Your task to perform on an android device: turn off picture-in-picture Image 0: 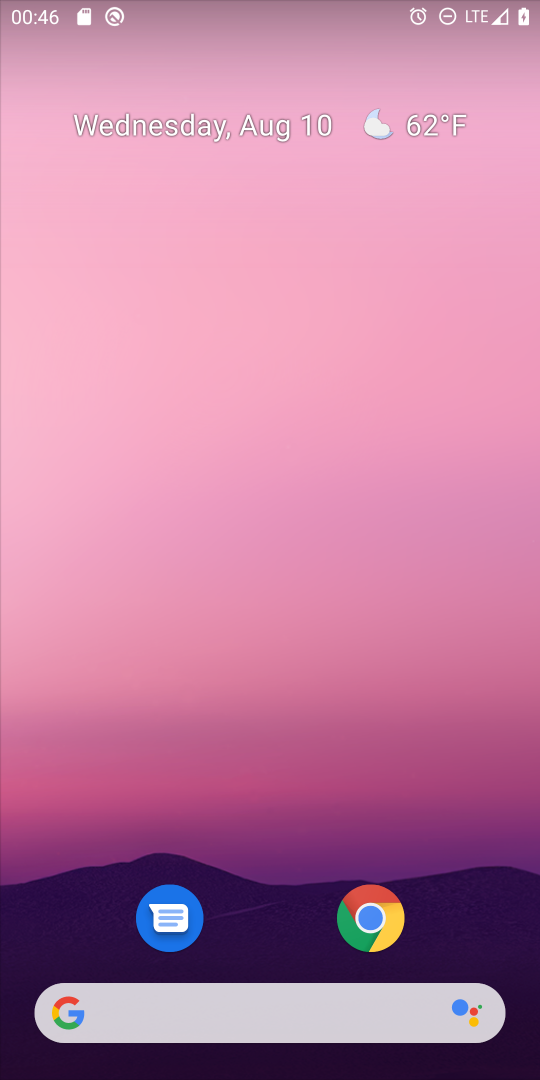
Step 0: click (378, 922)
Your task to perform on an android device: turn off picture-in-picture Image 1: 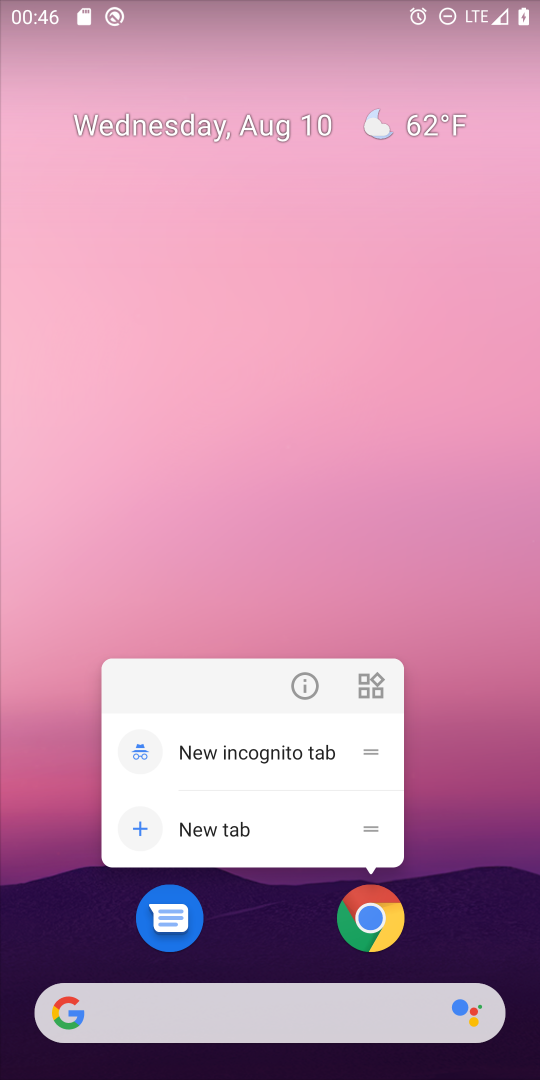
Step 1: click (312, 678)
Your task to perform on an android device: turn off picture-in-picture Image 2: 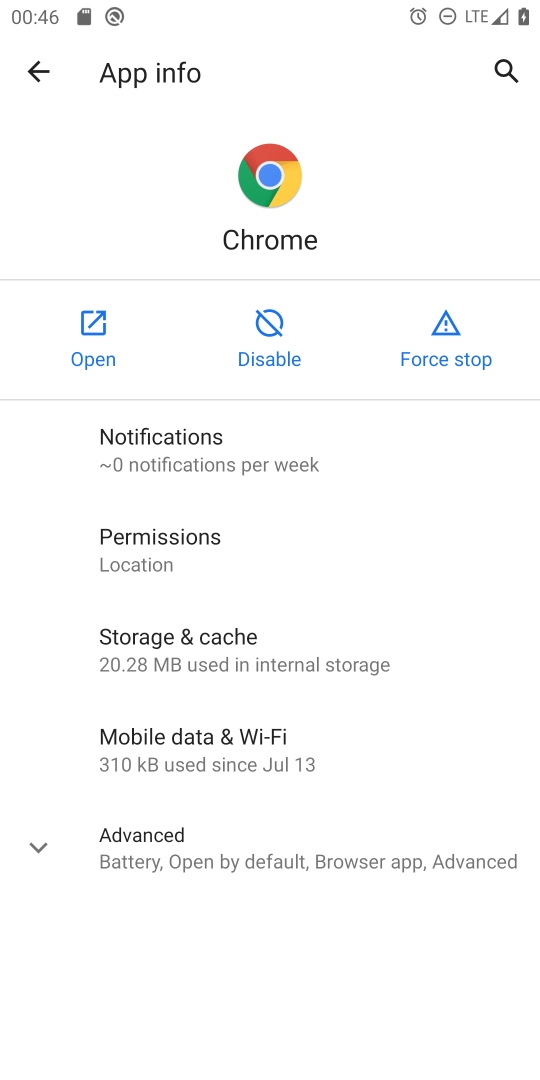
Step 2: click (200, 863)
Your task to perform on an android device: turn off picture-in-picture Image 3: 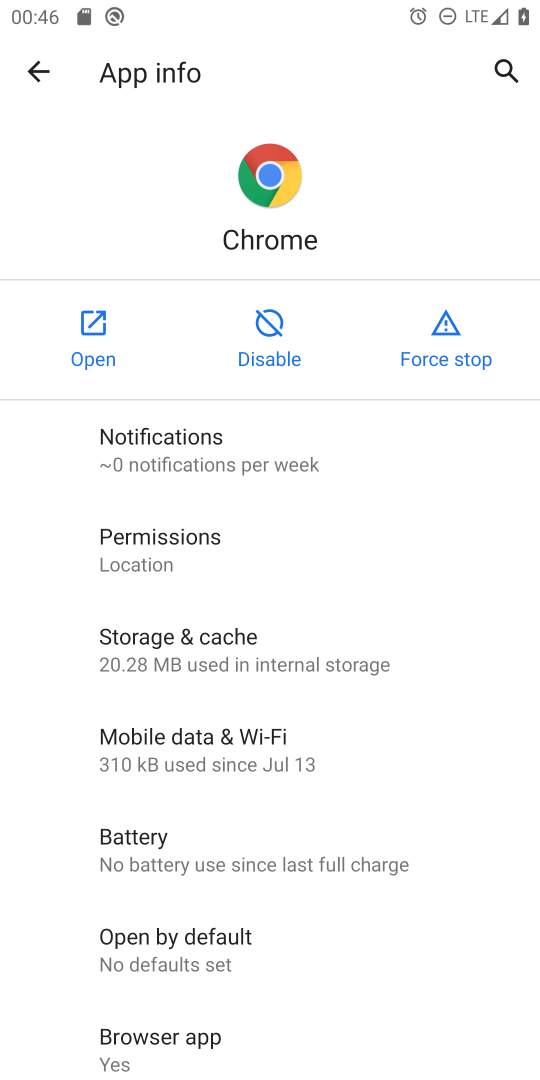
Step 3: drag from (336, 943) to (350, 214)
Your task to perform on an android device: turn off picture-in-picture Image 4: 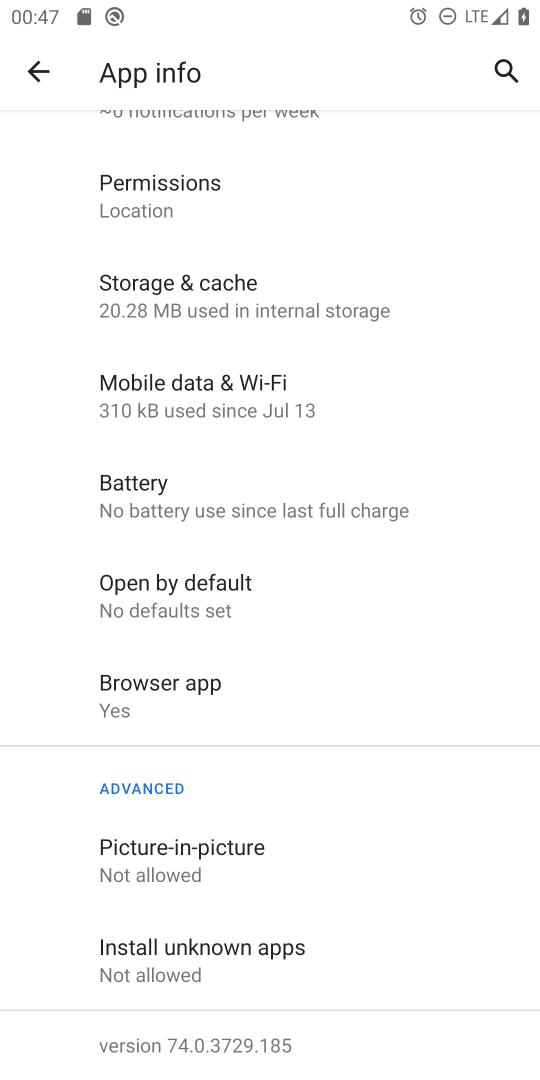
Step 4: click (212, 879)
Your task to perform on an android device: turn off picture-in-picture Image 5: 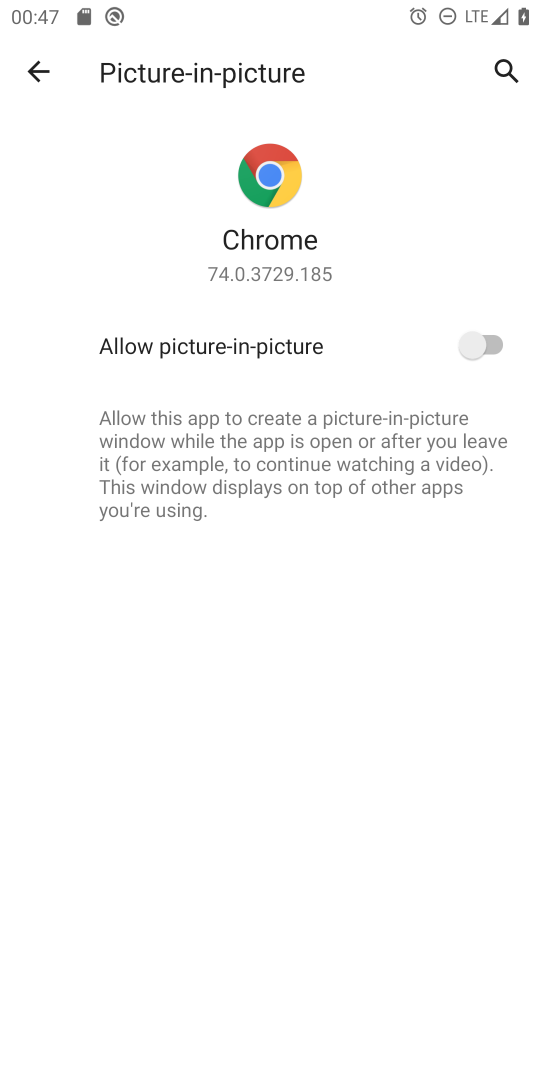
Step 5: task complete